Your task to perform on an android device: add a contact Image 0: 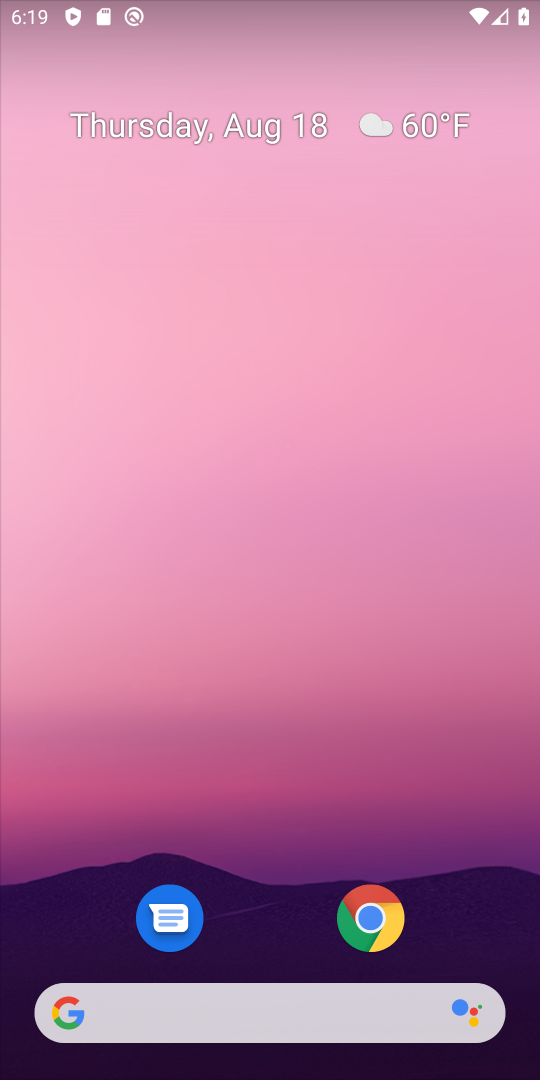
Step 0: drag from (306, 901) to (345, 60)
Your task to perform on an android device: add a contact Image 1: 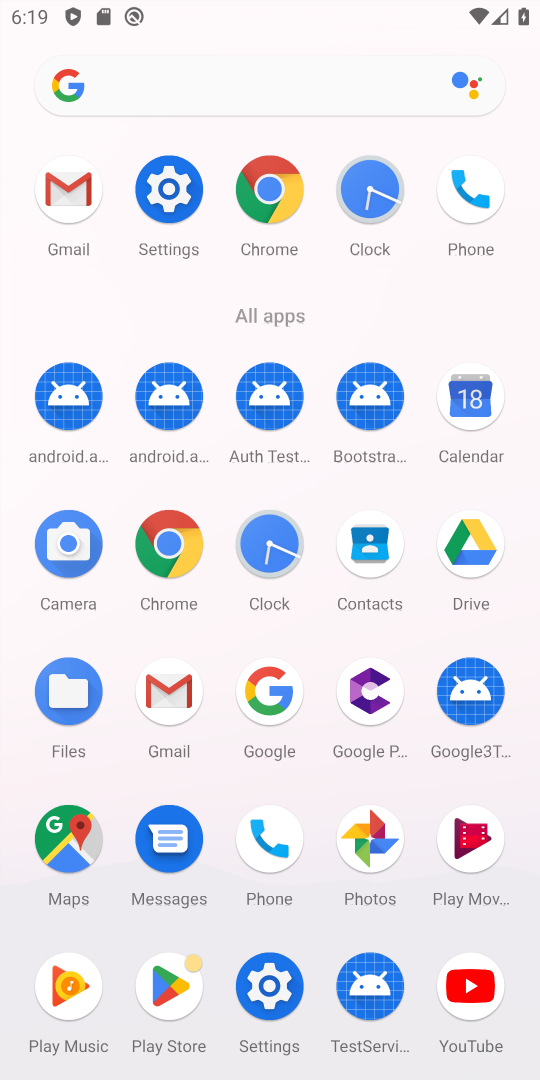
Step 1: click (373, 545)
Your task to perform on an android device: add a contact Image 2: 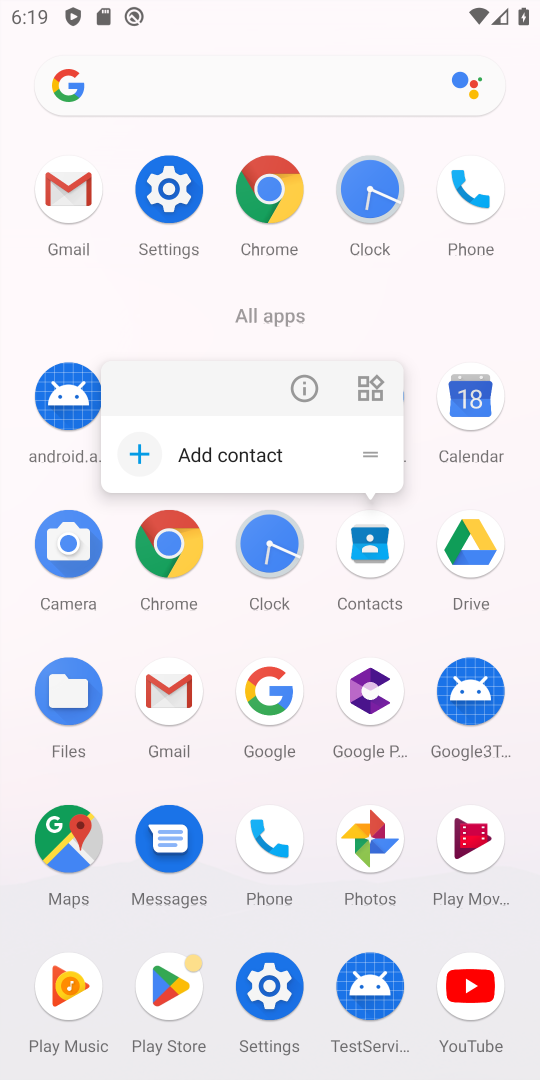
Step 2: click (367, 551)
Your task to perform on an android device: add a contact Image 3: 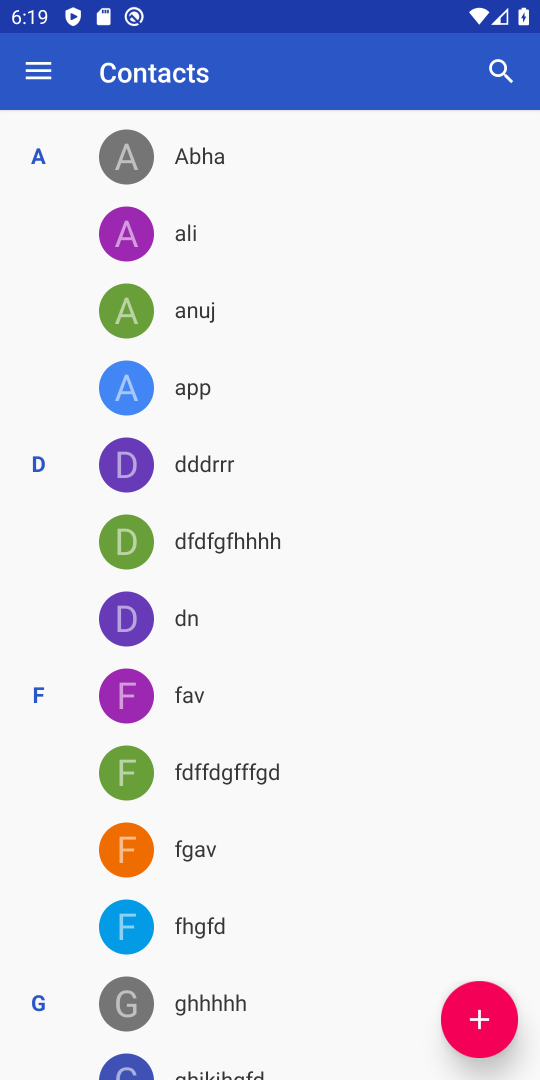
Step 3: click (489, 1018)
Your task to perform on an android device: add a contact Image 4: 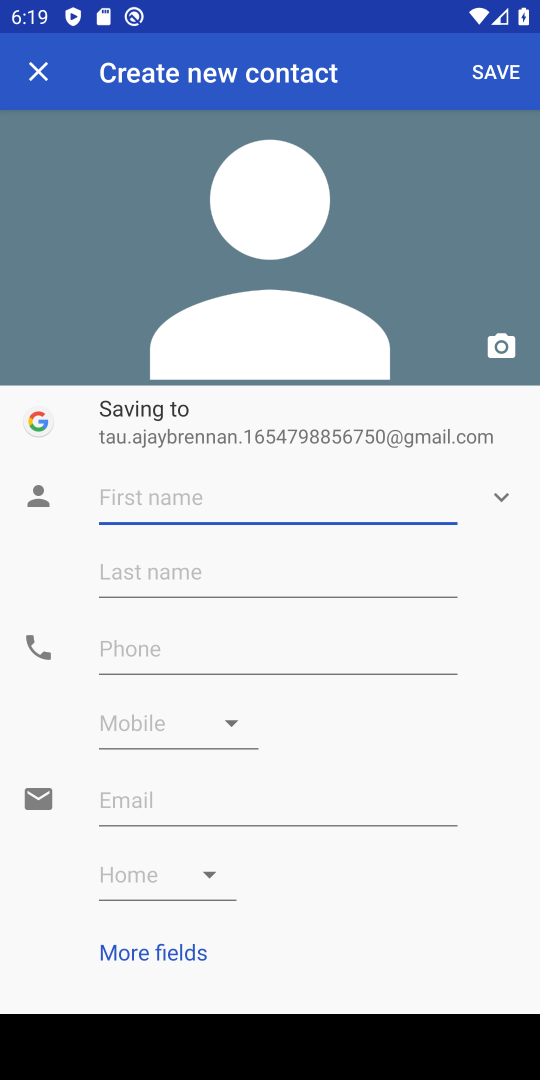
Step 4: type "vbvbvbv"
Your task to perform on an android device: add a contact Image 5: 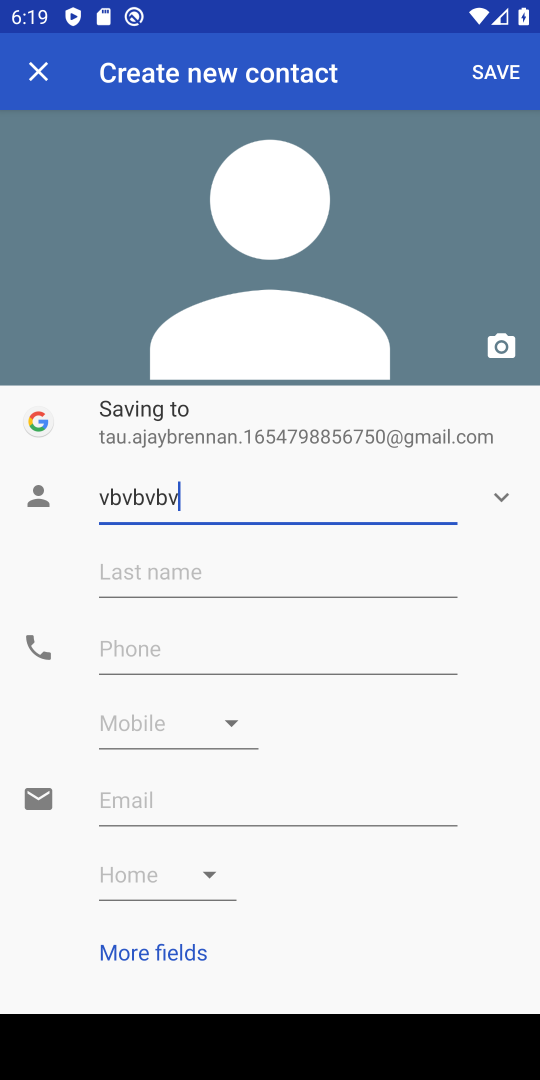
Step 5: press enter
Your task to perform on an android device: add a contact Image 6: 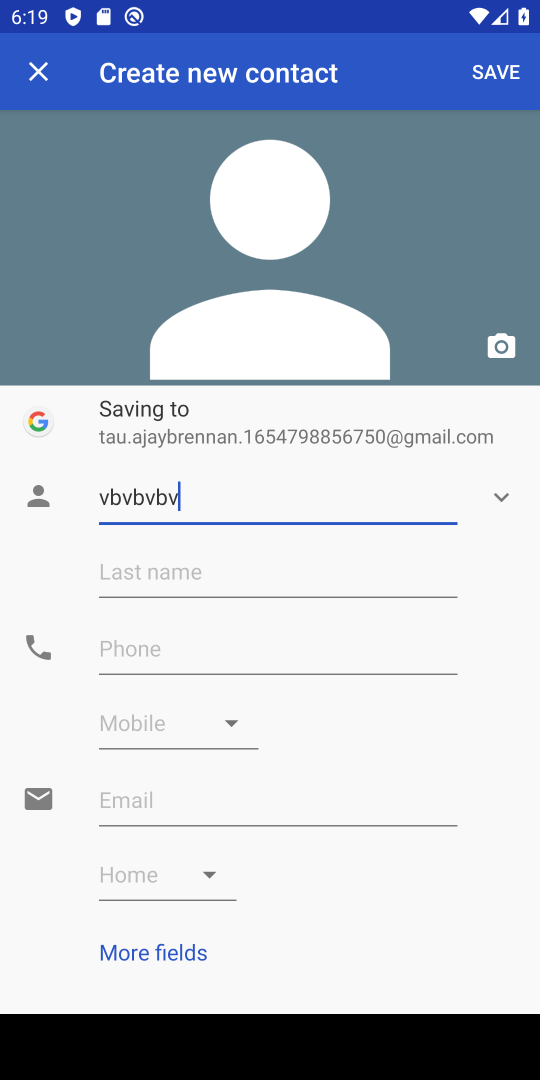
Step 6: click (232, 653)
Your task to perform on an android device: add a contact Image 7: 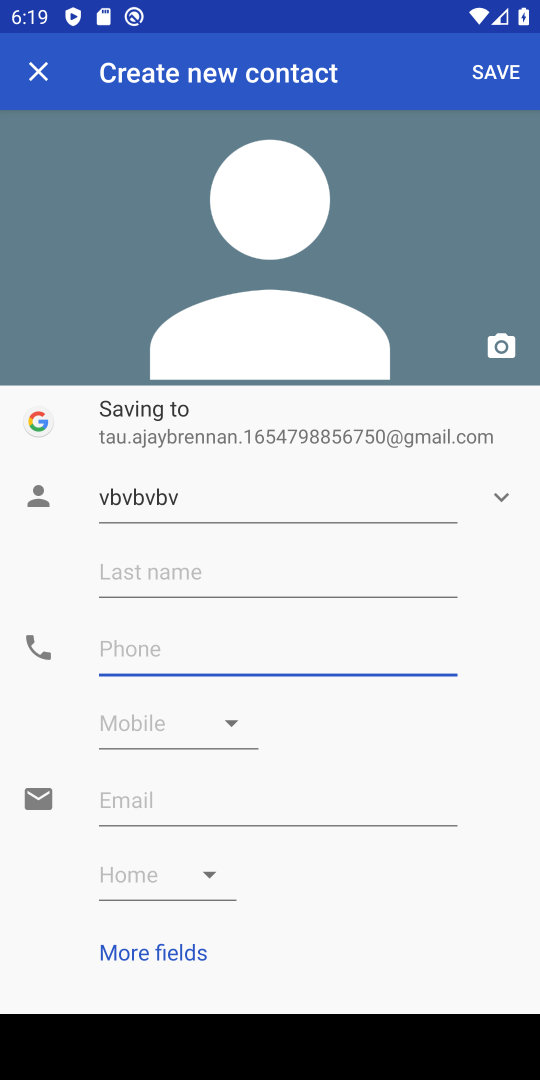
Step 7: type "t7t767"
Your task to perform on an android device: add a contact Image 8: 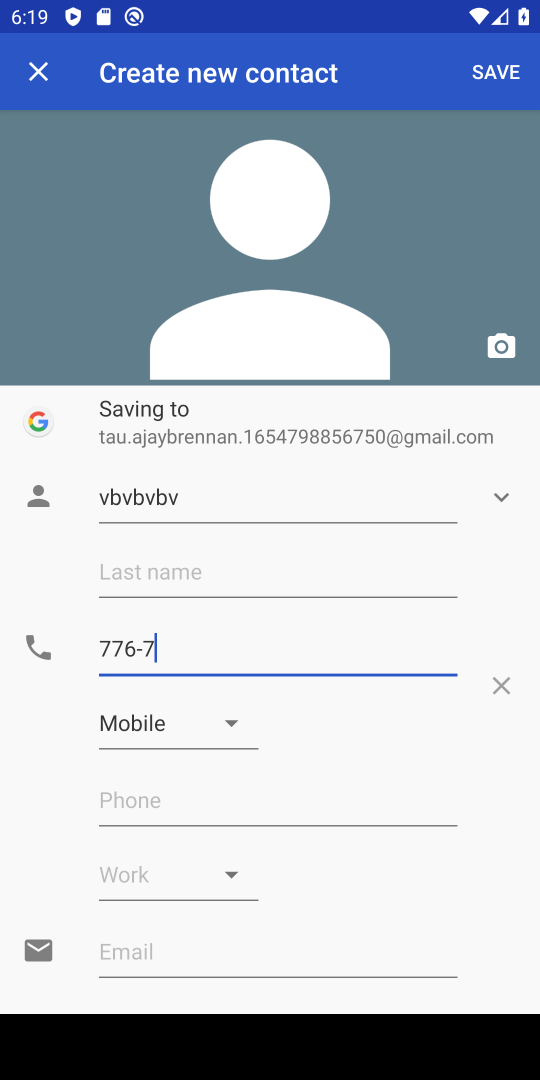
Step 8: press enter
Your task to perform on an android device: add a contact Image 9: 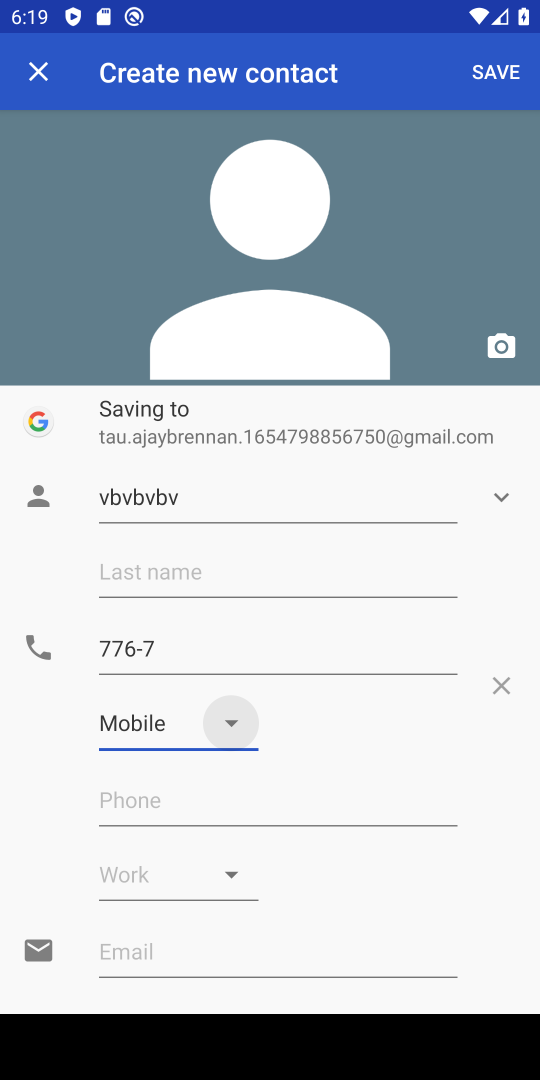
Step 9: click (506, 68)
Your task to perform on an android device: add a contact Image 10: 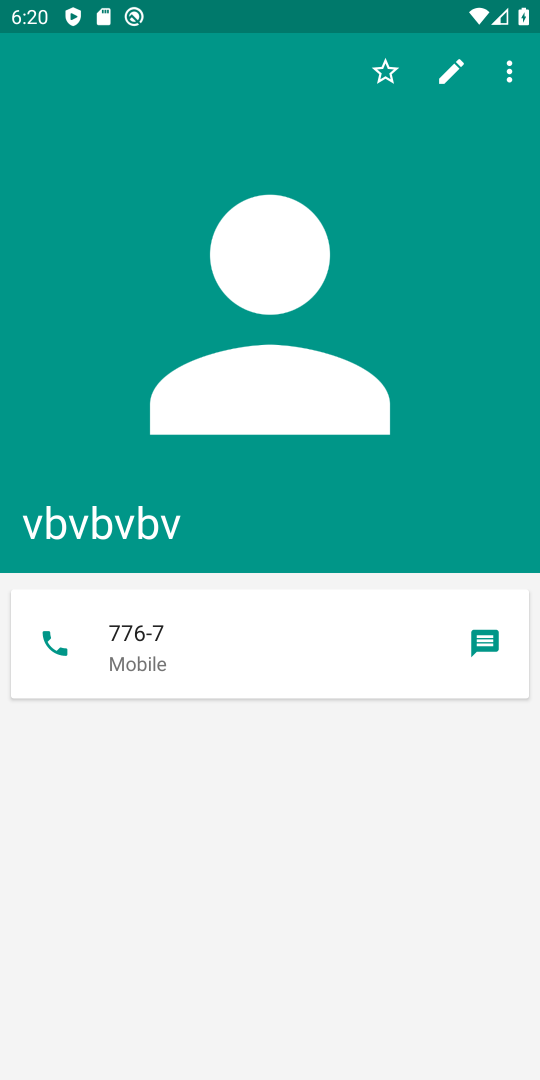
Step 10: task complete